Your task to perform on an android device: Add usb-b to the cart on target Image 0: 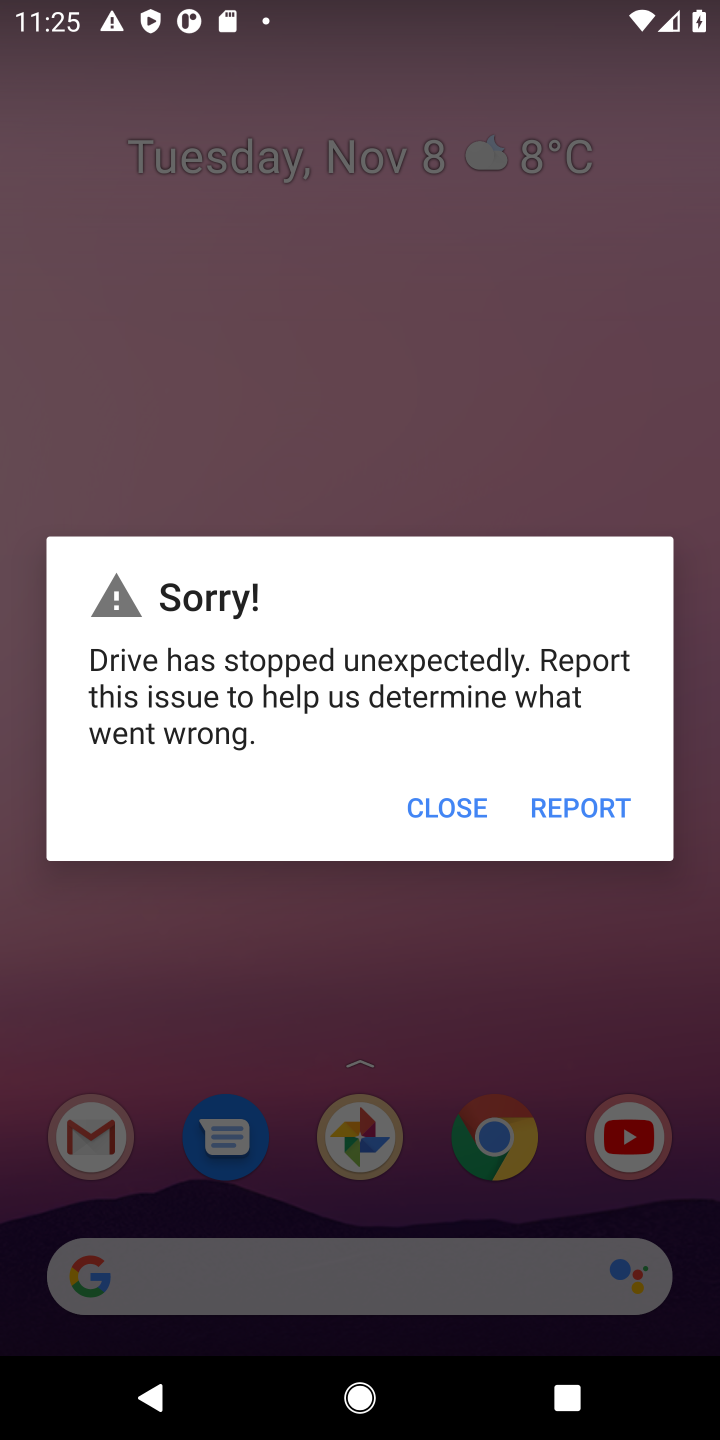
Step 0: click (445, 797)
Your task to perform on an android device: Add usb-b to the cart on target Image 1: 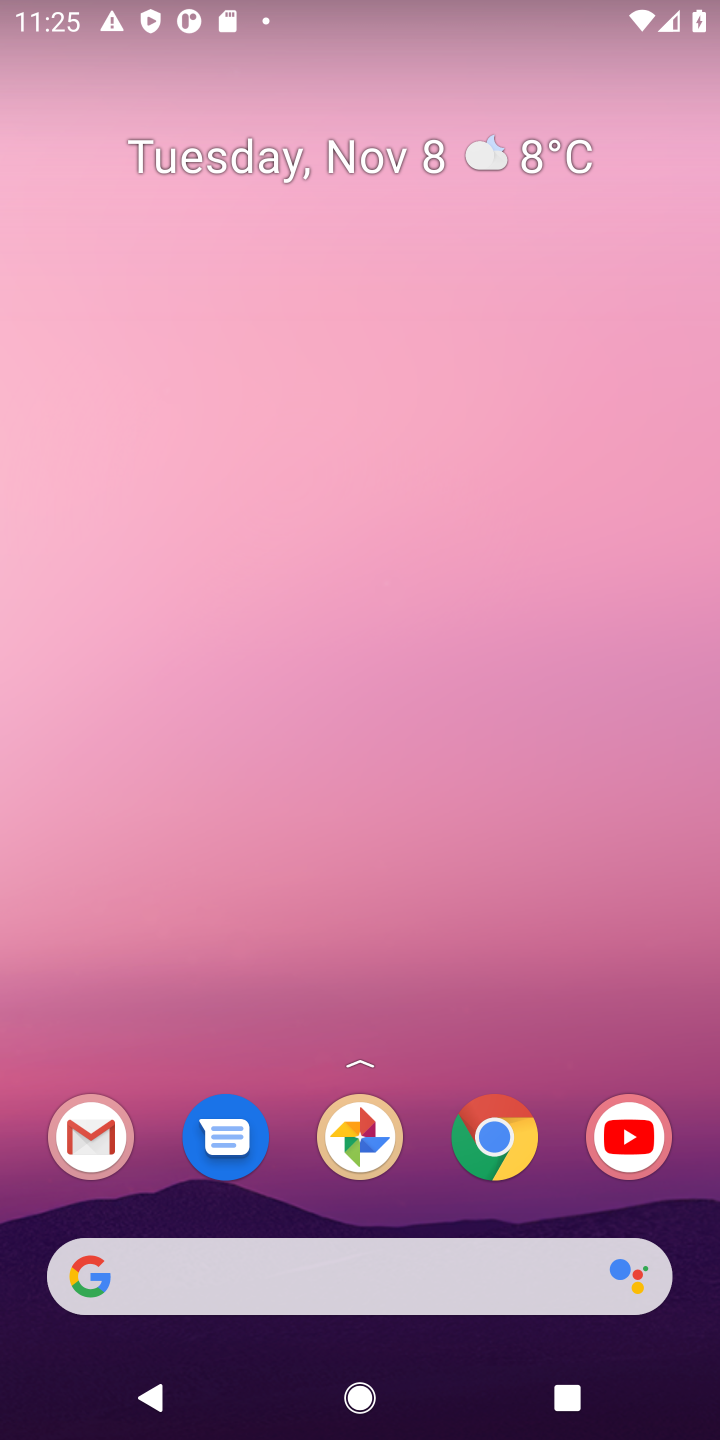
Step 1: click (487, 1130)
Your task to perform on an android device: Add usb-b to the cart on target Image 2: 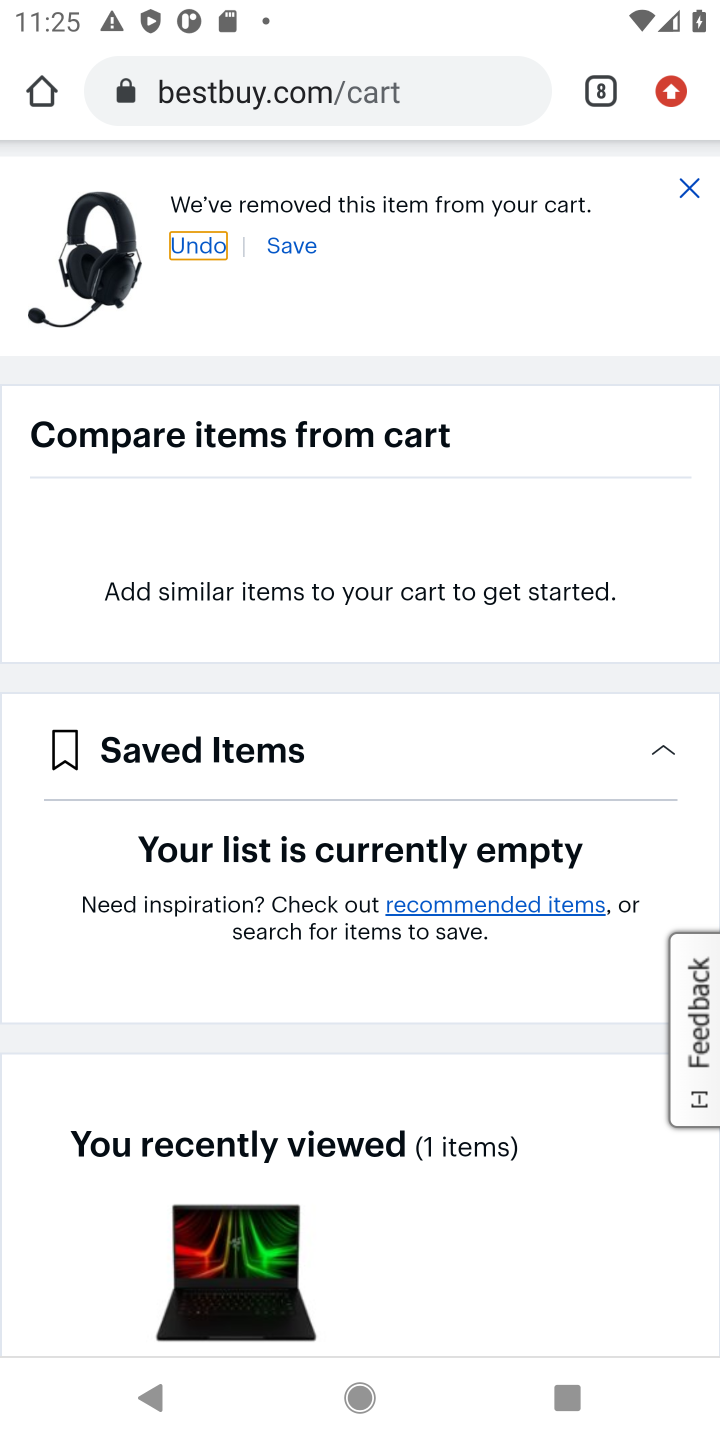
Step 2: click (599, 83)
Your task to perform on an android device: Add usb-b to the cart on target Image 3: 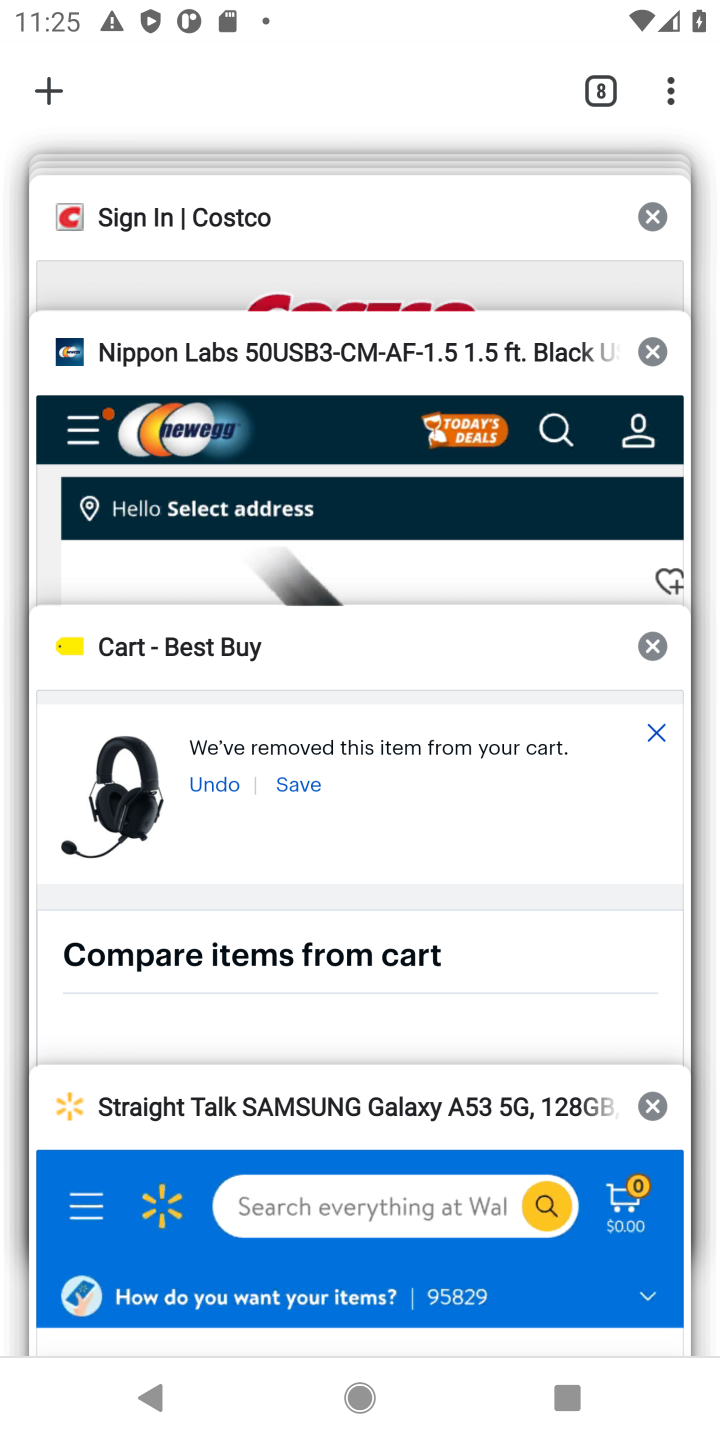
Step 3: drag from (222, 208) to (71, 1009)
Your task to perform on an android device: Add usb-b to the cart on target Image 4: 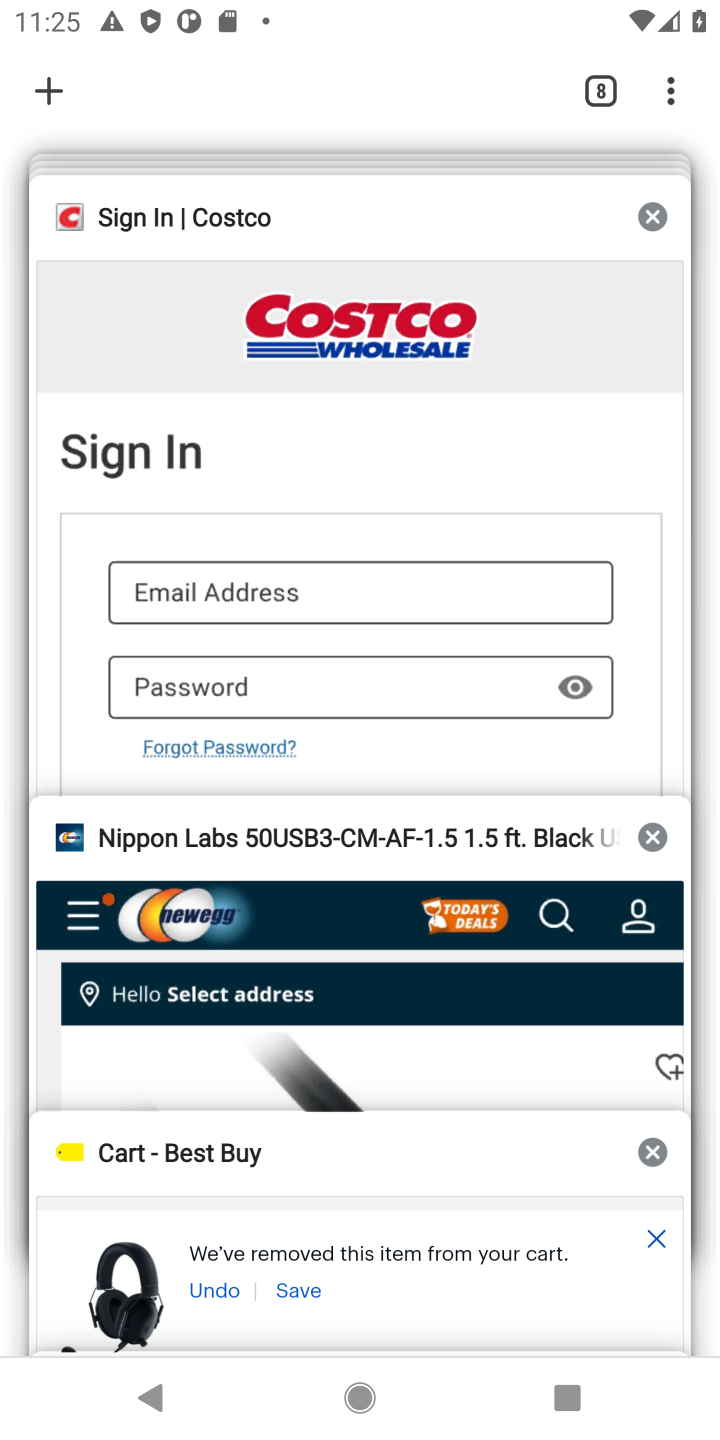
Step 4: drag from (335, 183) to (268, 642)
Your task to perform on an android device: Add usb-b to the cart on target Image 5: 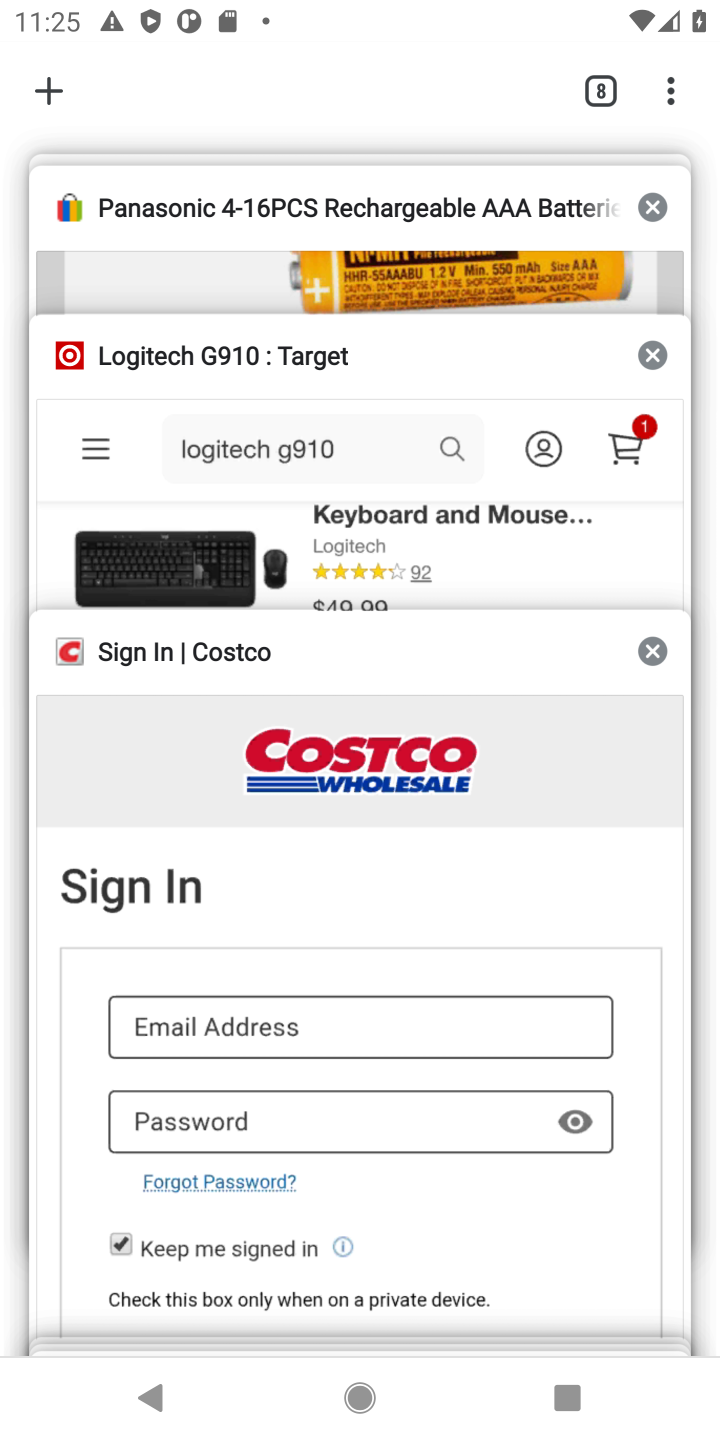
Step 5: click (373, 429)
Your task to perform on an android device: Add usb-b to the cart on target Image 6: 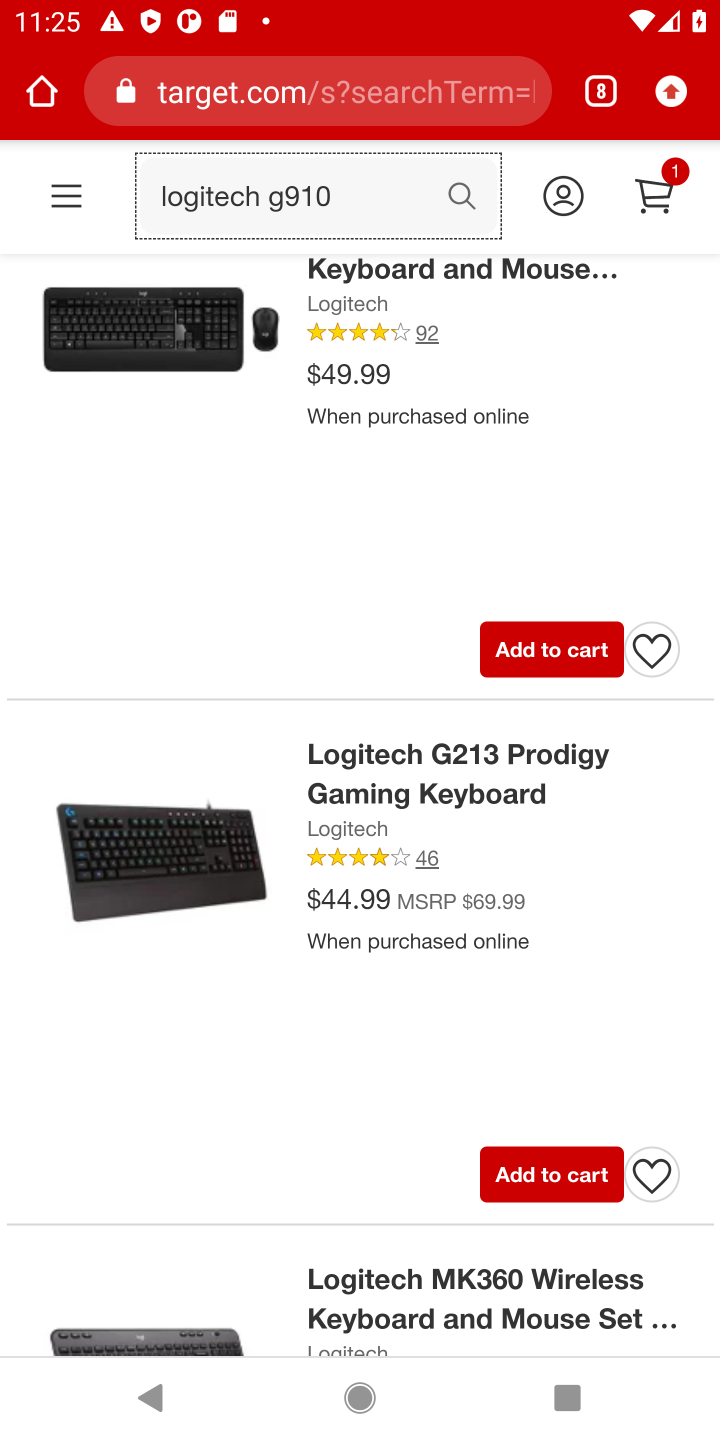
Step 6: click (362, 191)
Your task to perform on an android device: Add usb-b to the cart on target Image 7: 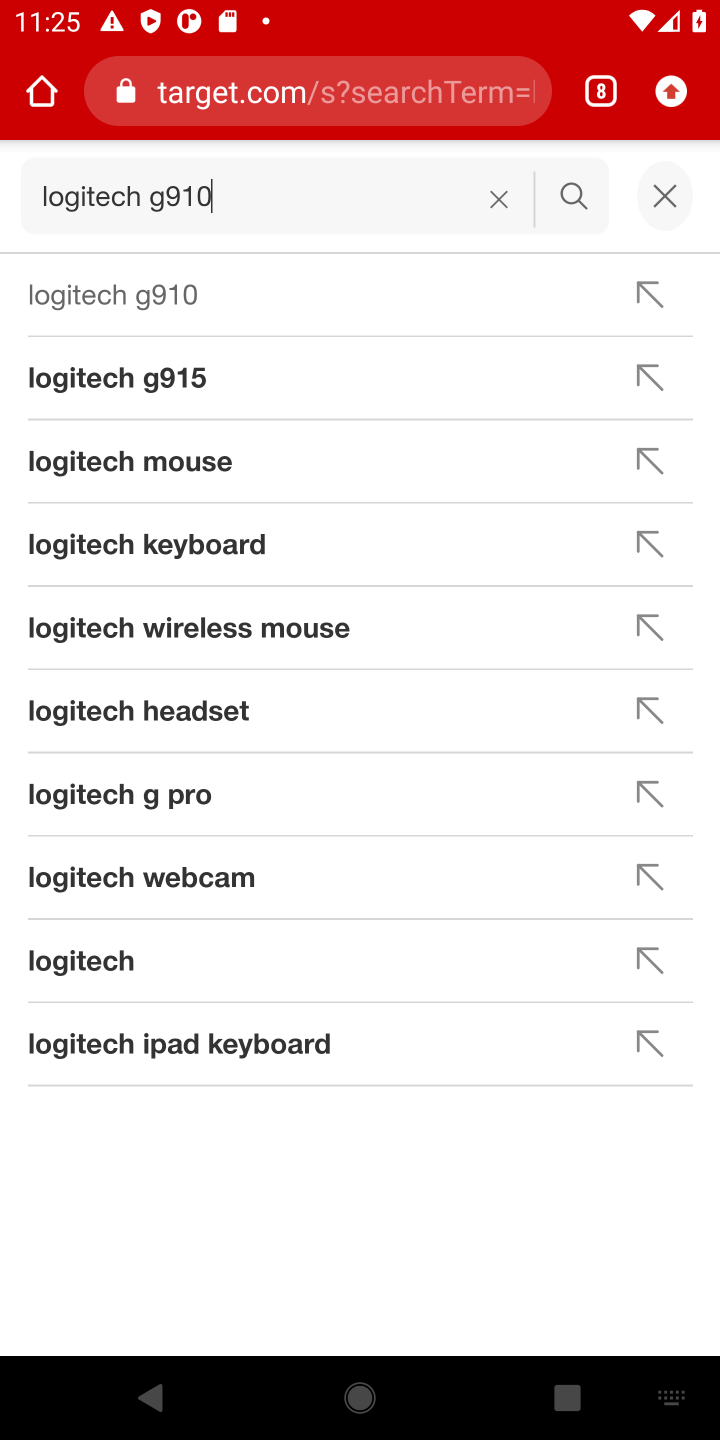
Step 7: click (495, 198)
Your task to perform on an android device: Add usb-b to the cart on target Image 8: 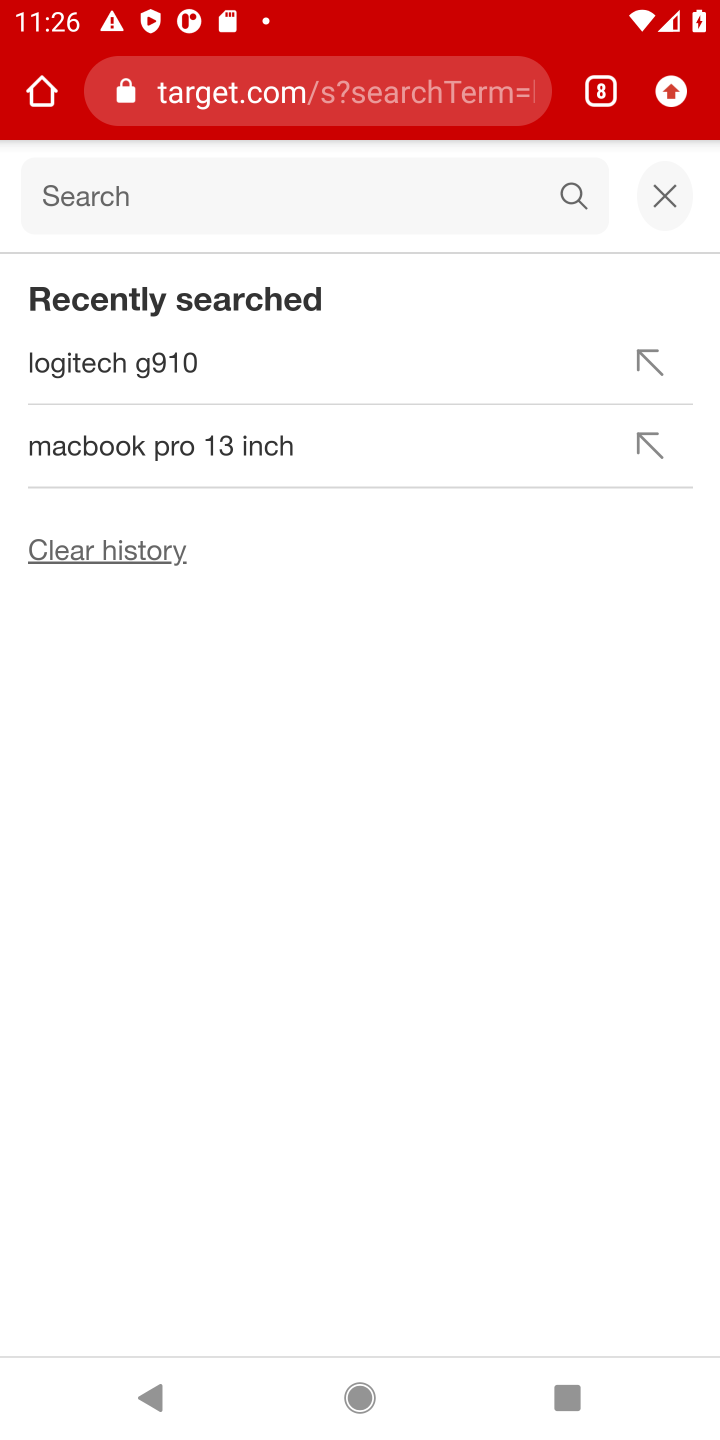
Step 8: type "usb-b"
Your task to perform on an android device: Add usb-b to the cart on target Image 9: 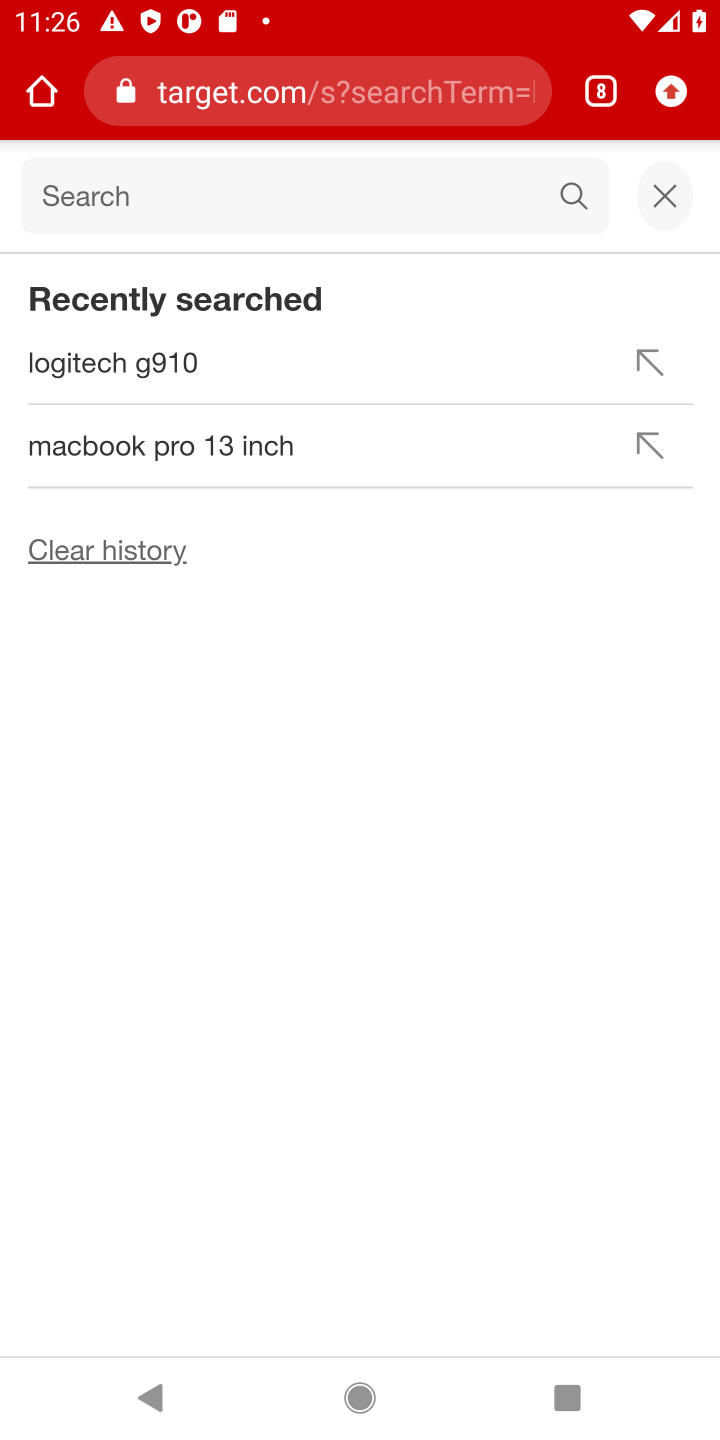
Step 9: click (79, 193)
Your task to perform on an android device: Add usb-b to the cart on target Image 10: 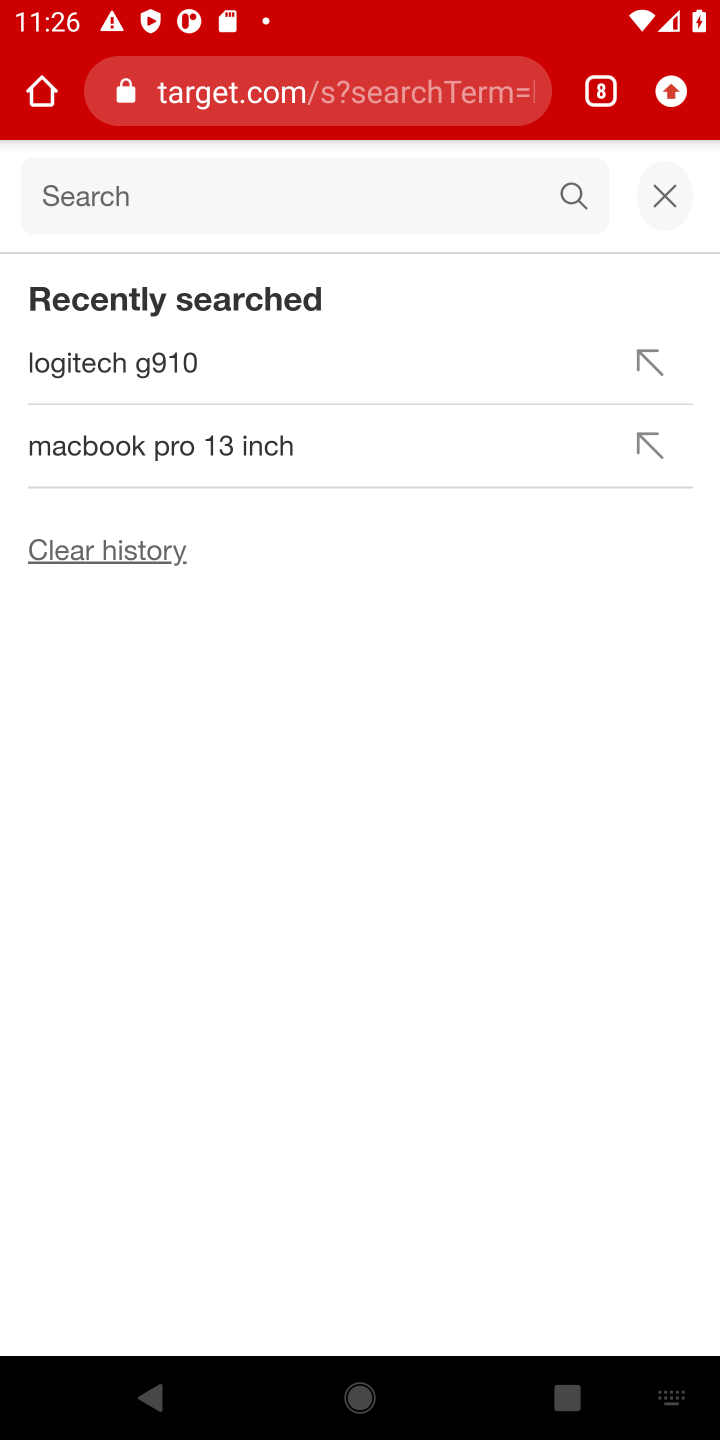
Step 10: type "usb-b"
Your task to perform on an android device: Add usb-b to the cart on target Image 11: 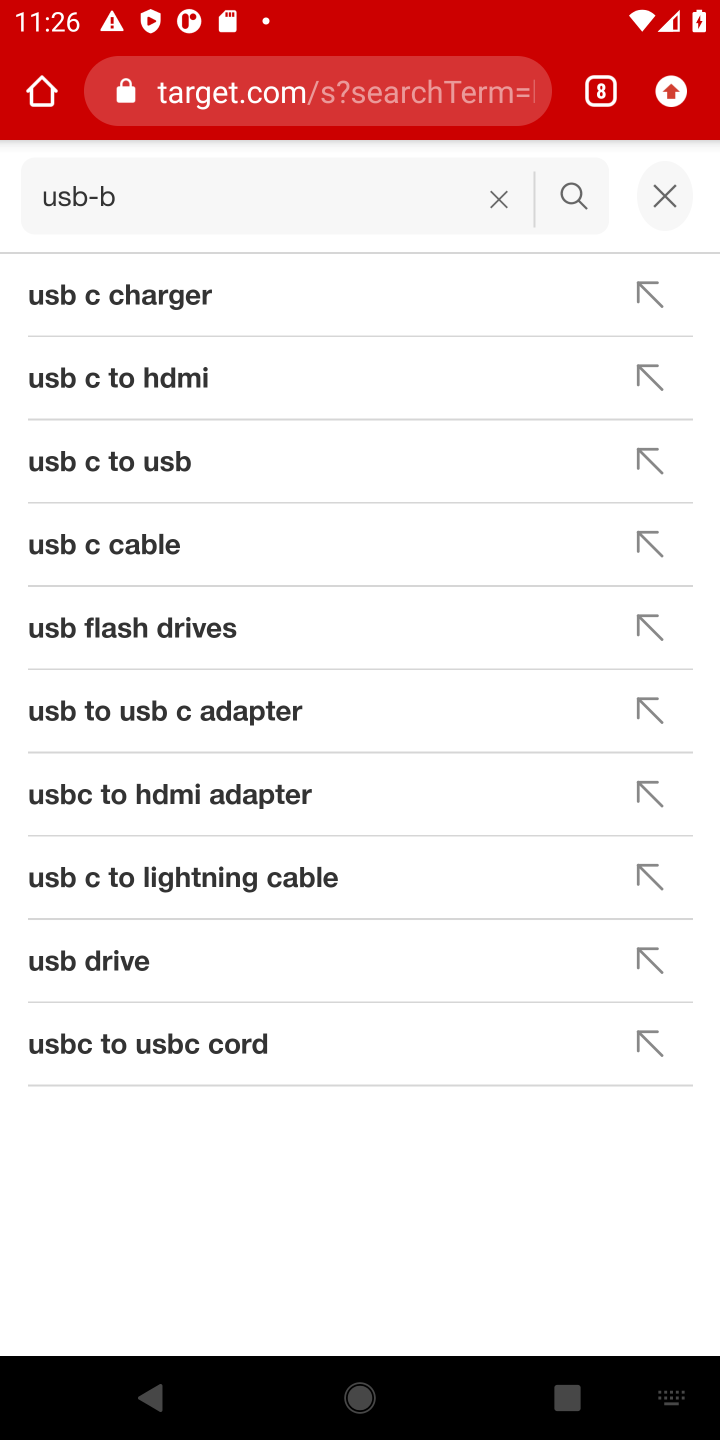
Step 11: click (578, 183)
Your task to perform on an android device: Add usb-b to the cart on target Image 12: 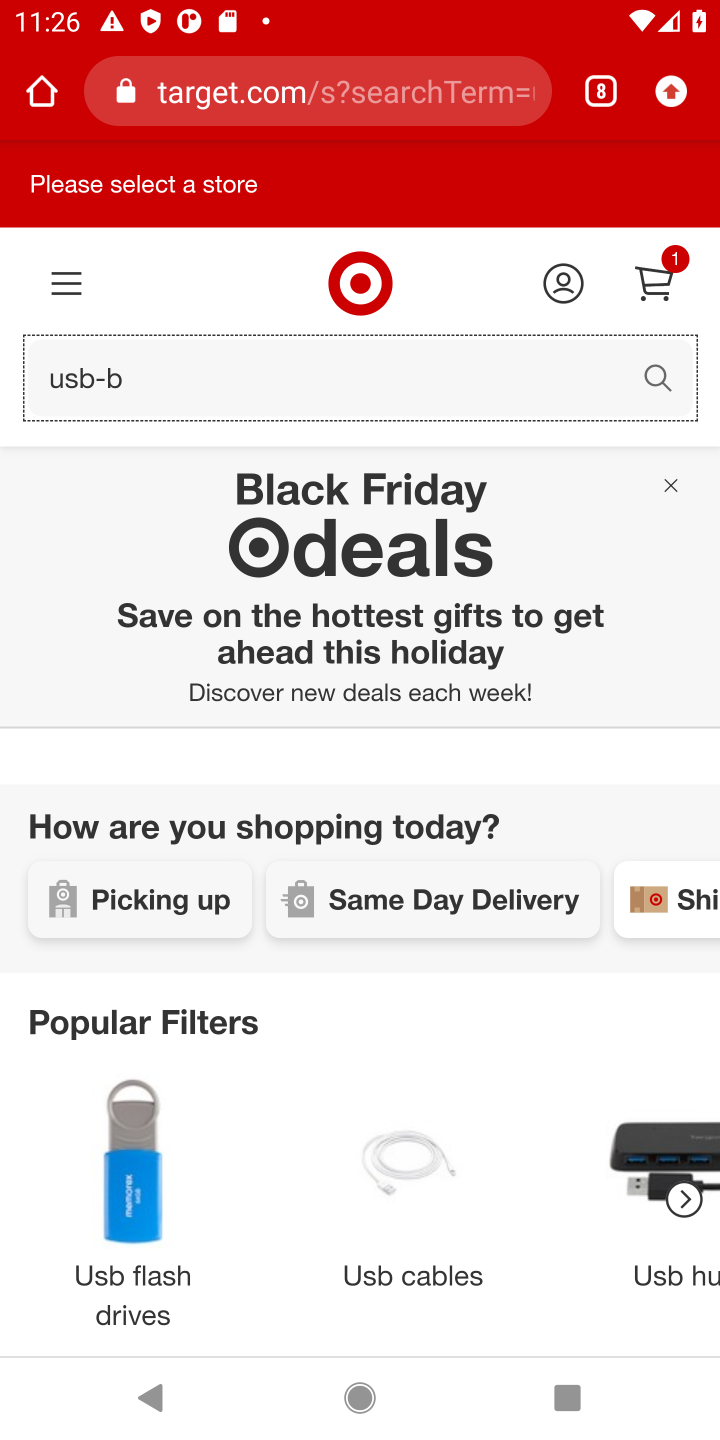
Step 12: drag from (345, 1180) to (456, 673)
Your task to perform on an android device: Add usb-b to the cart on target Image 13: 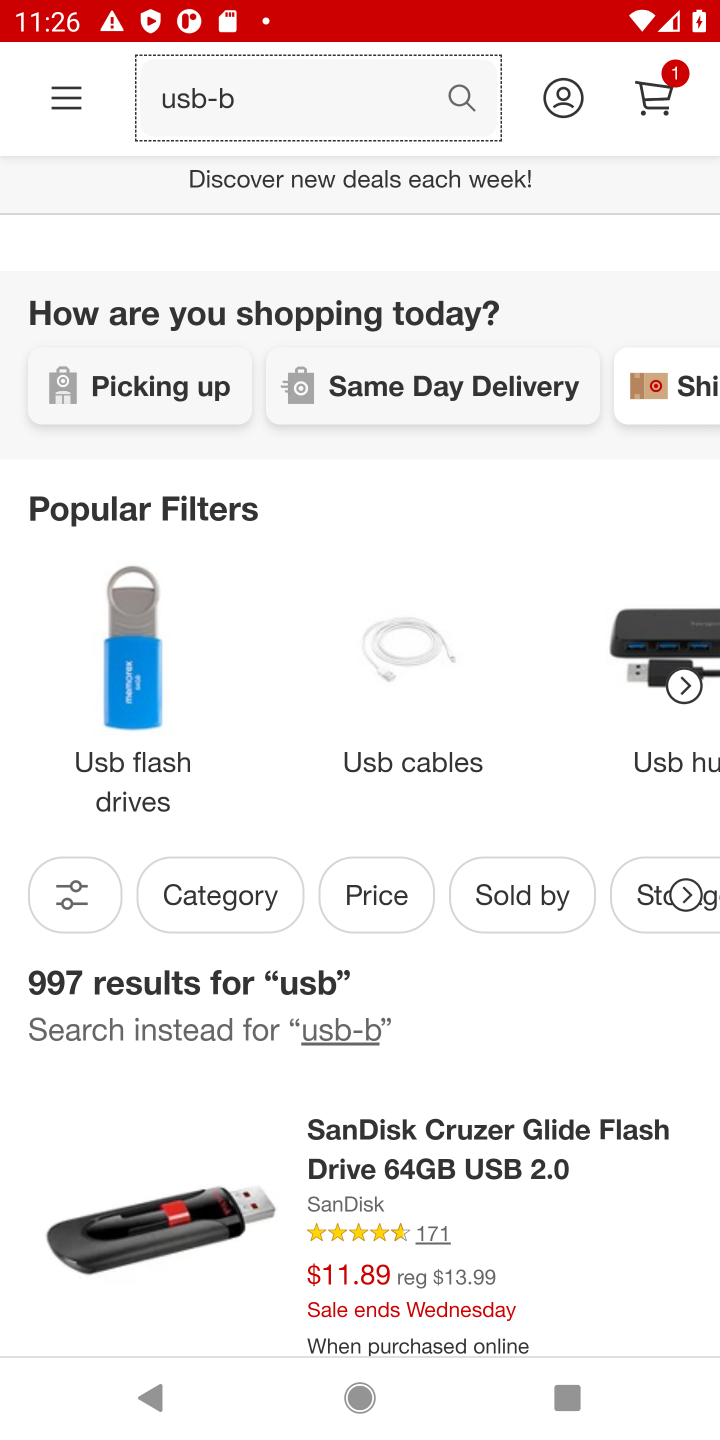
Step 13: click (432, 751)
Your task to perform on an android device: Add usb-b to the cart on target Image 14: 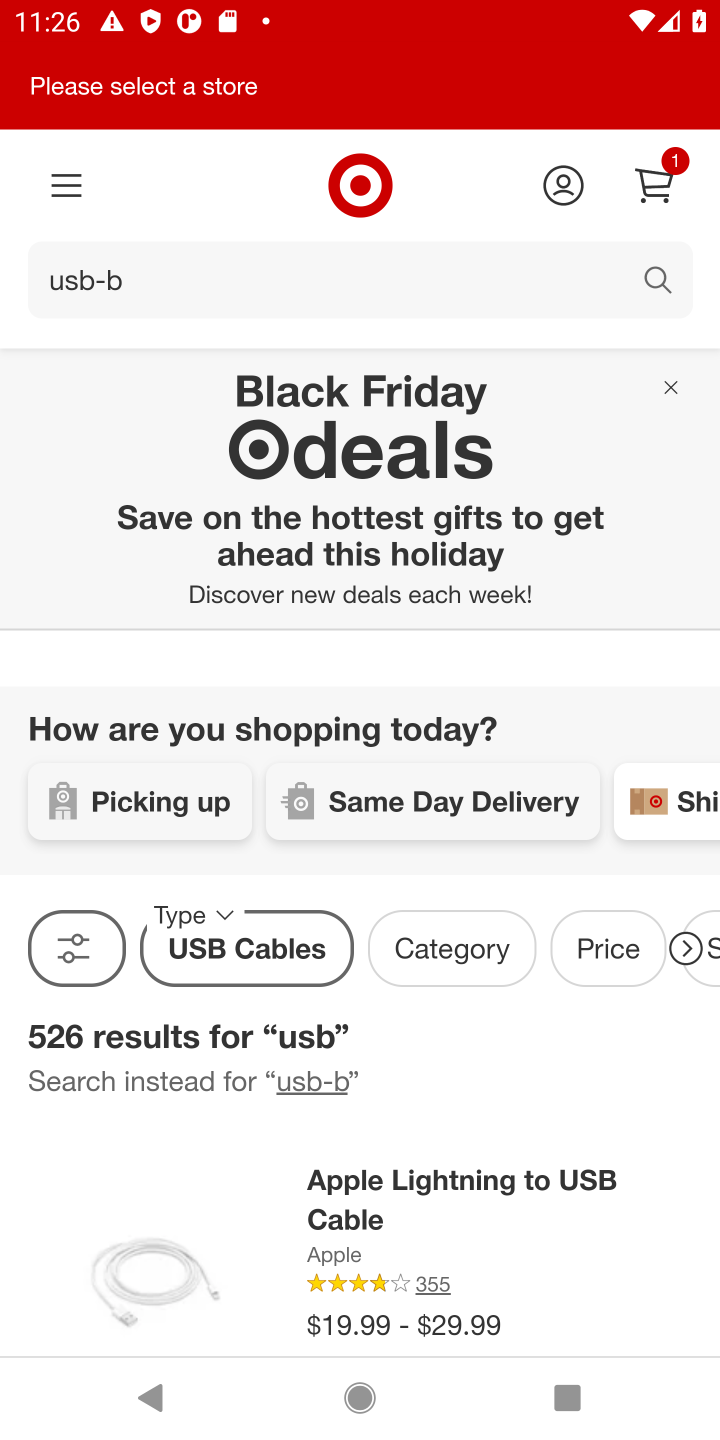
Step 14: drag from (494, 1196) to (611, 776)
Your task to perform on an android device: Add usb-b to the cart on target Image 15: 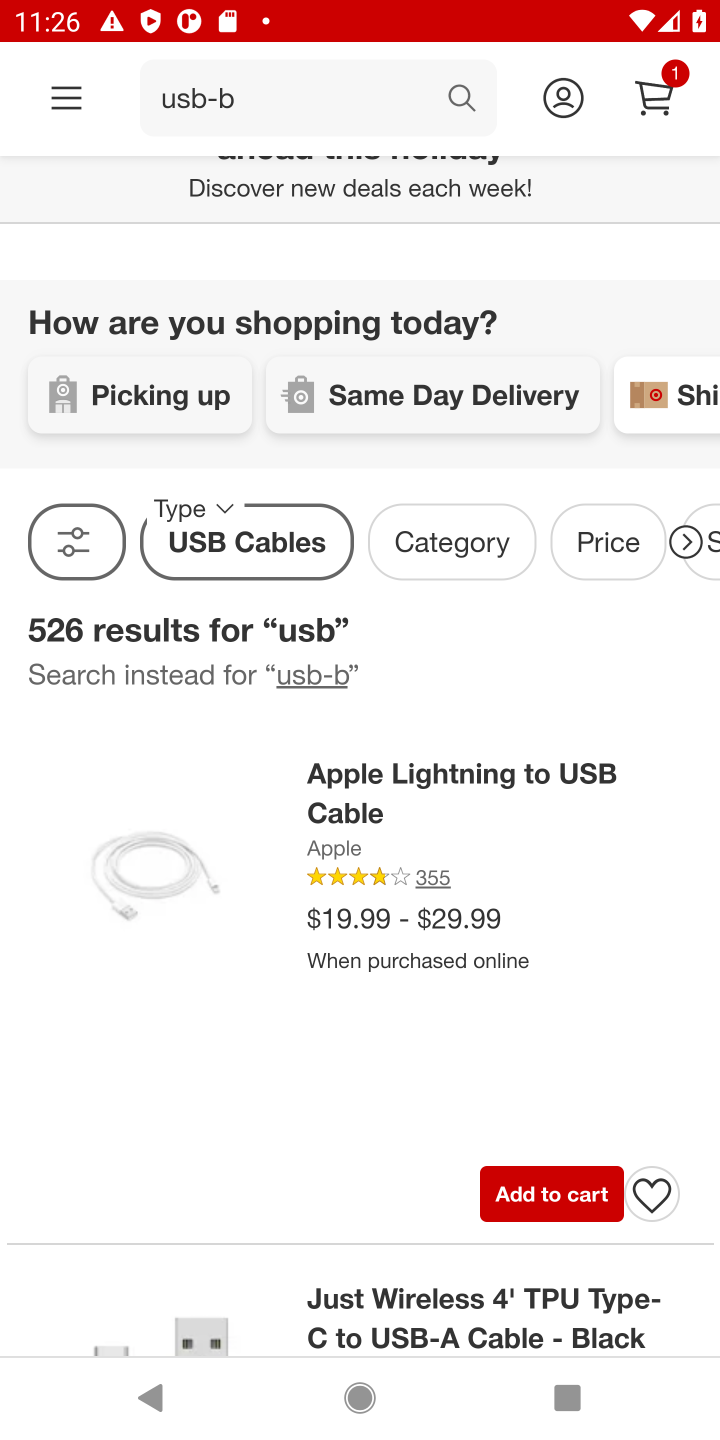
Step 15: drag from (471, 1286) to (682, 343)
Your task to perform on an android device: Add usb-b to the cart on target Image 16: 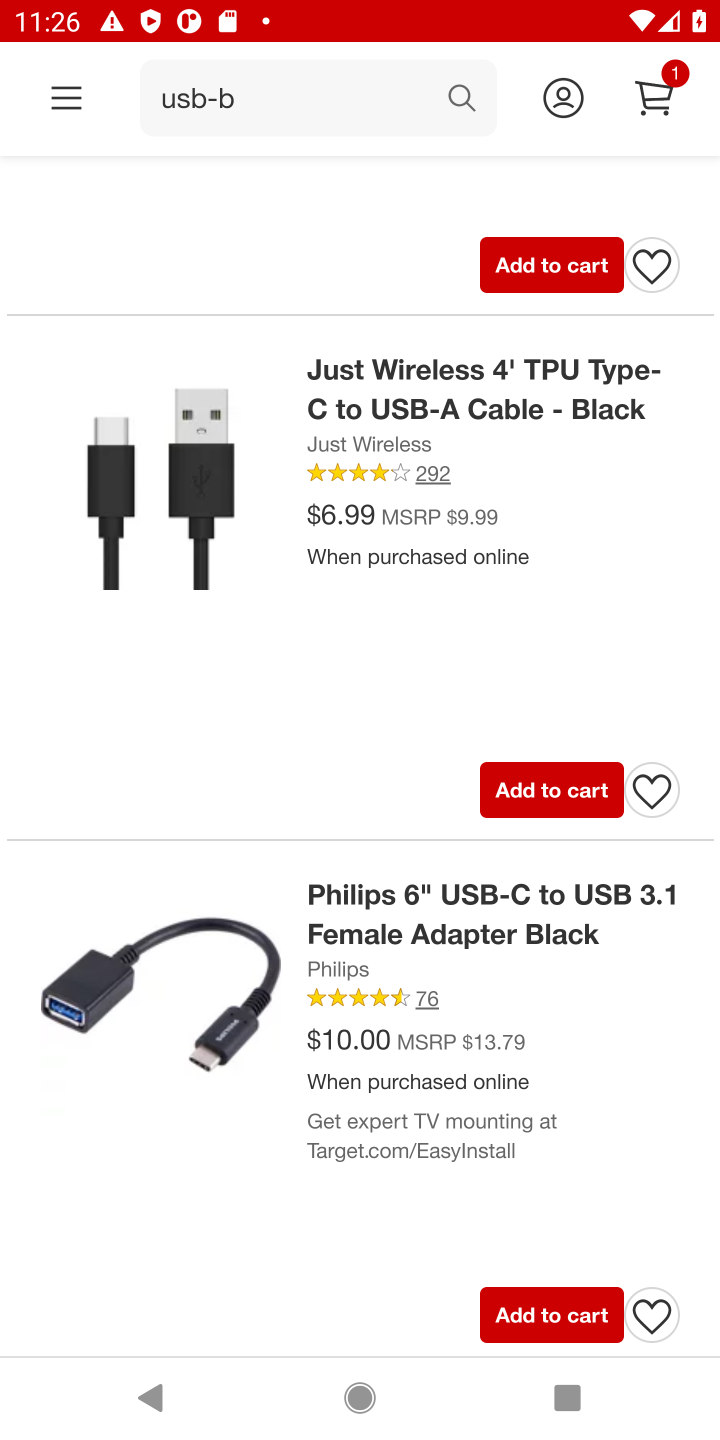
Step 16: click (522, 1319)
Your task to perform on an android device: Add usb-b to the cart on target Image 17: 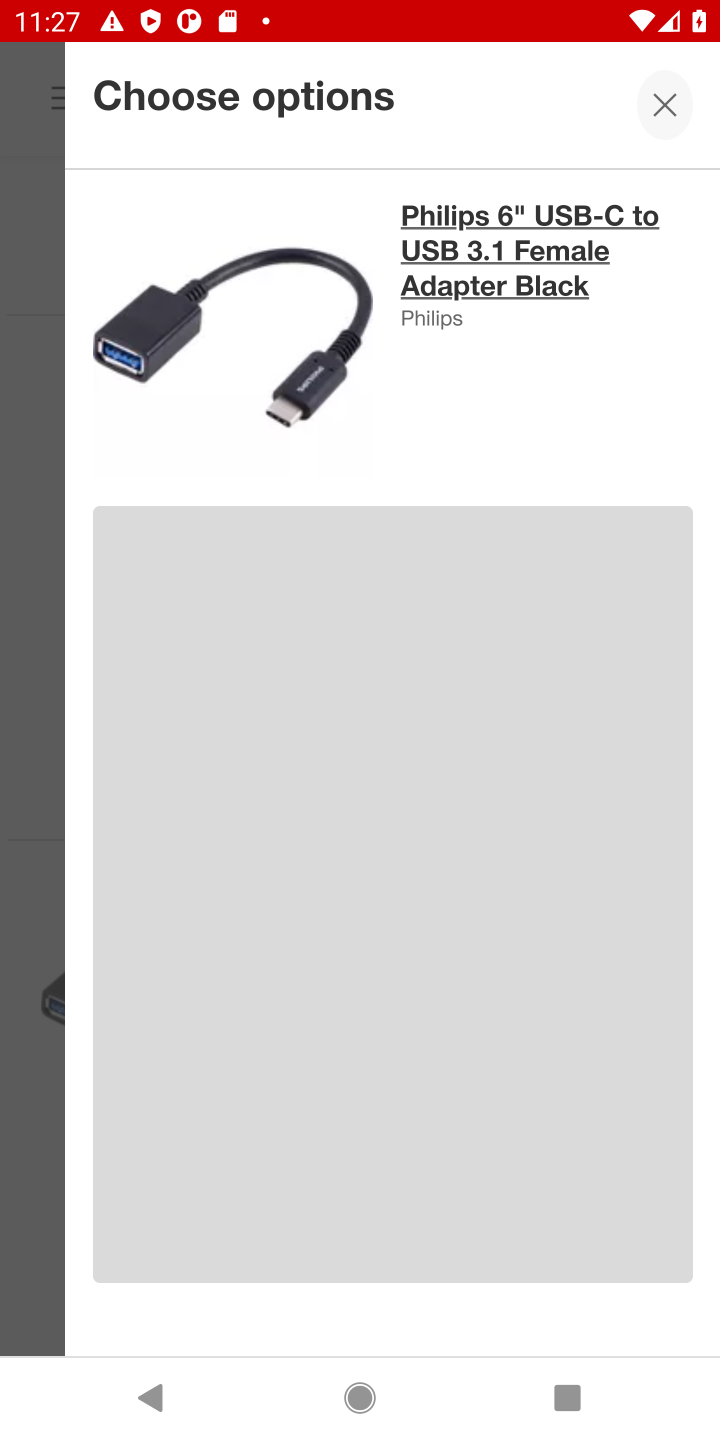
Step 17: task complete